Your task to perform on an android device: turn on airplane mode Image 0: 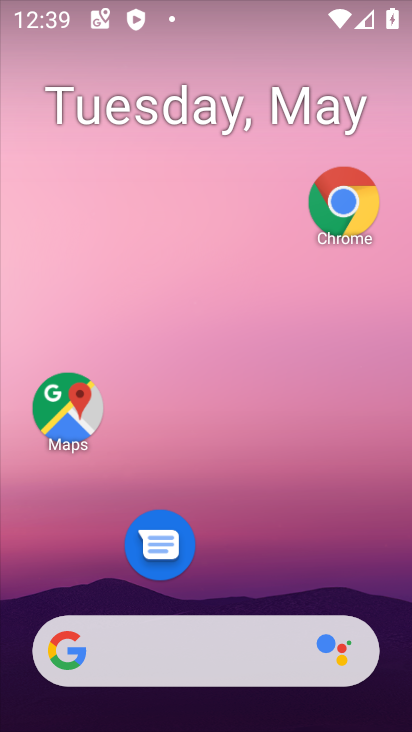
Step 0: drag from (238, 15) to (208, 652)
Your task to perform on an android device: turn on airplane mode Image 1: 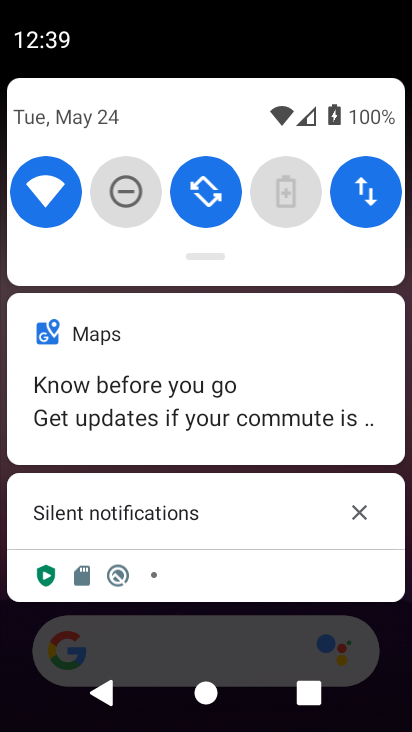
Step 1: drag from (229, 134) to (265, 672)
Your task to perform on an android device: turn on airplane mode Image 2: 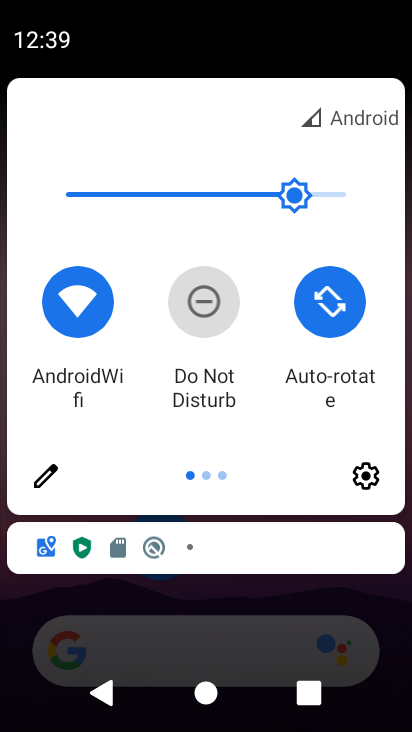
Step 2: drag from (374, 413) to (47, 433)
Your task to perform on an android device: turn on airplane mode Image 3: 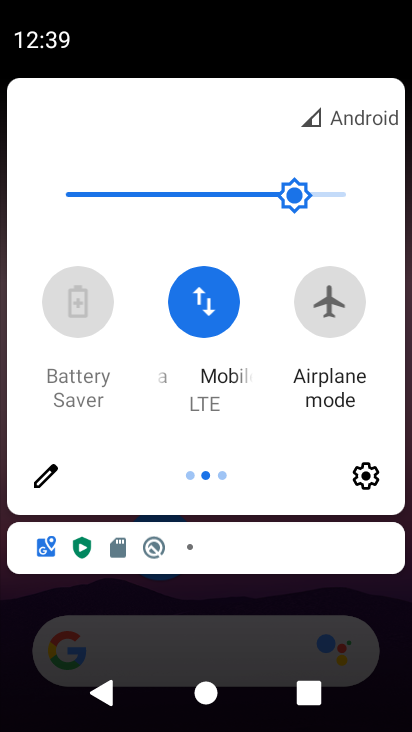
Step 3: click (343, 301)
Your task to perform on an android device: turn on airplane mode Image 4: 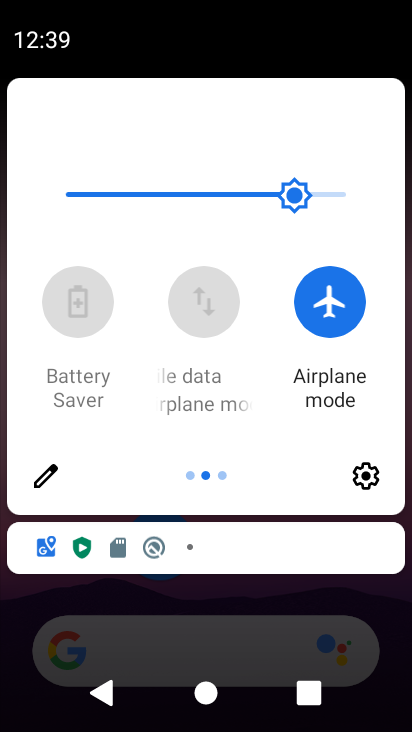
Step 4: task complete